Your task to perform on an android device: show emergency info Image 0: 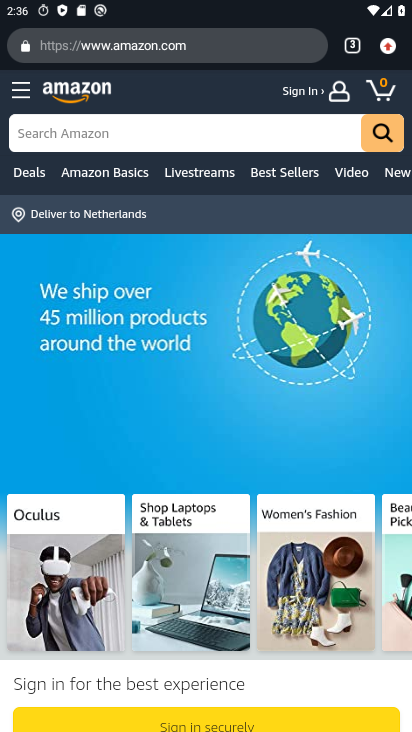
Step 0: press home button
Your task to perform on an android device: show emergency info Image 1: 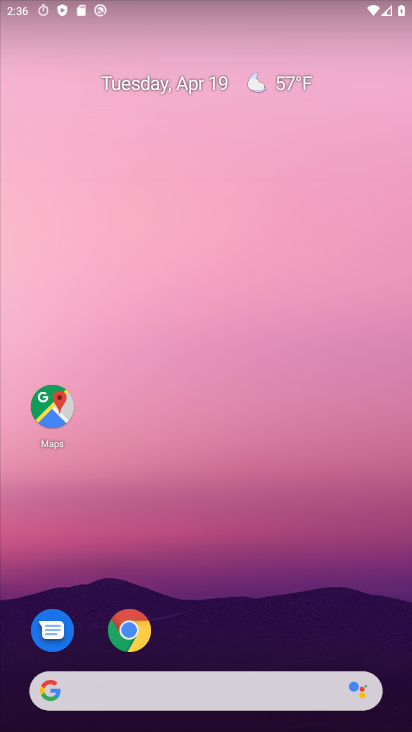
Step 1: drag from (214, 595) to (227, 6)
Your task to perform on an android device: show emergency info Image 2: 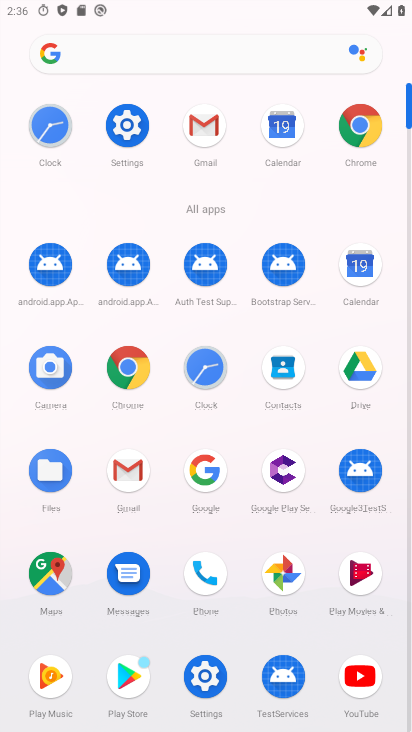
Step 2: click (124, 129)
Your task to perform on an android device: show emergency info Image 3: 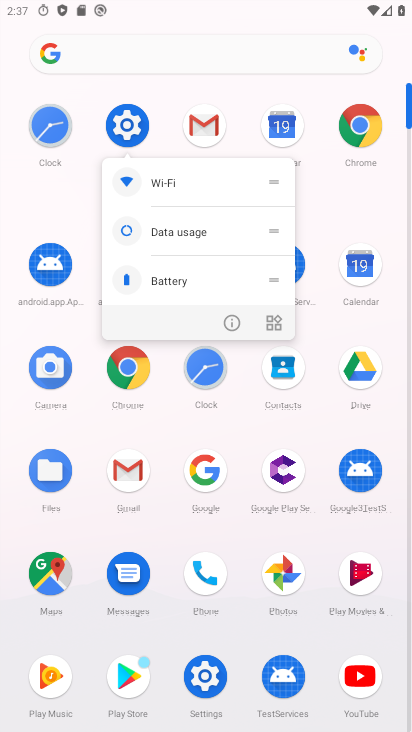
Step 3: click (130, 124)
Your task to perform on an android device: show emergency info Image 4: 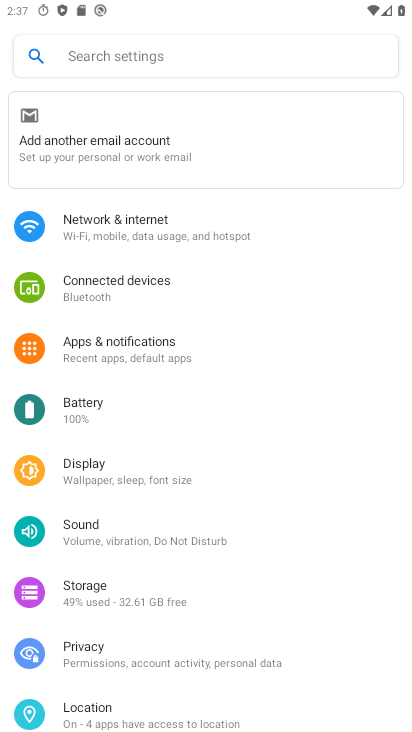
Step 4: drag from (156, 638) to (88, 71)
Your task to perform on an android device: show emergency info Image 5: 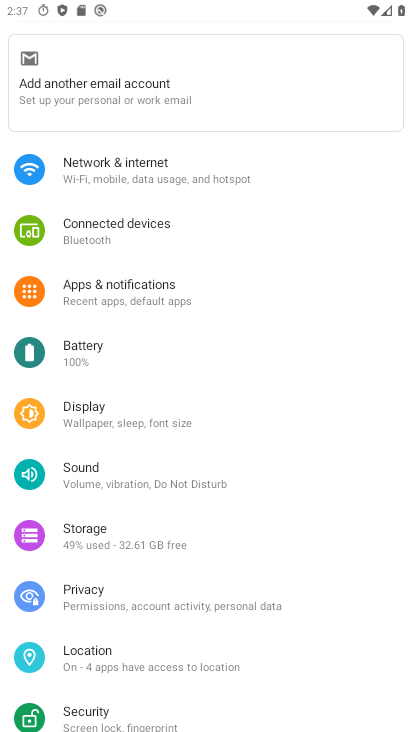
Step 5: drag from (175, 591) to (146, 159)
Your task to perform on an android device: show emergency info Image 6: 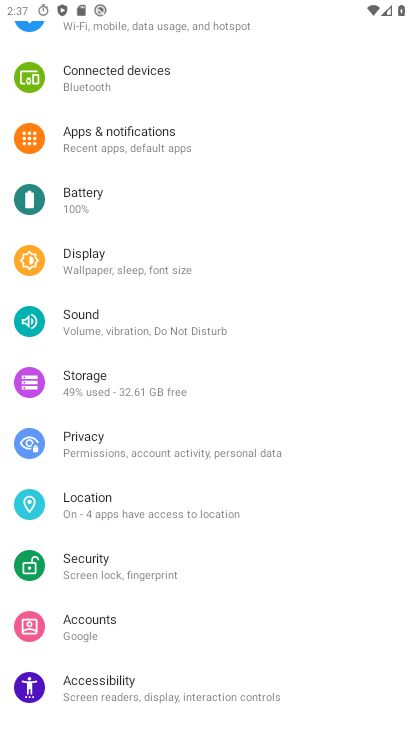
Step 6: drag from (153, 681) to (185, 198)
Your task to perform on an android device: show emergency info Image 7: 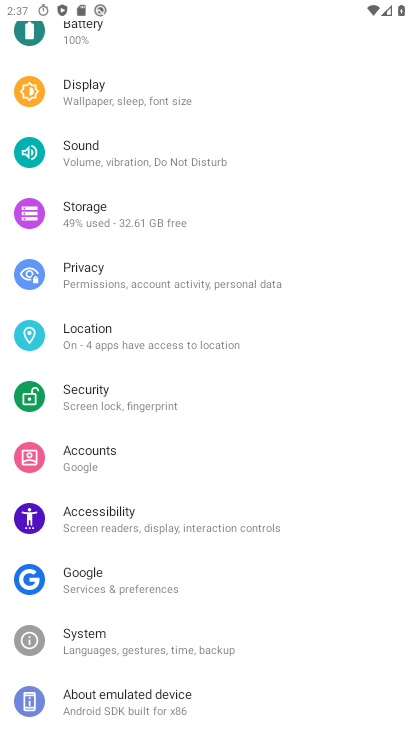
Step 7: click (151, 705)
Your task to perform on an android device: show emergency info Image 8: 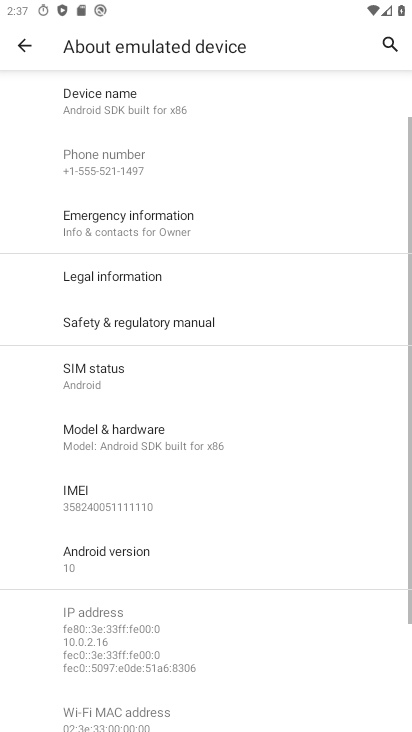
Step 8: click (151, 224)
Your task to perform on an android device: show emergency info Image 9: 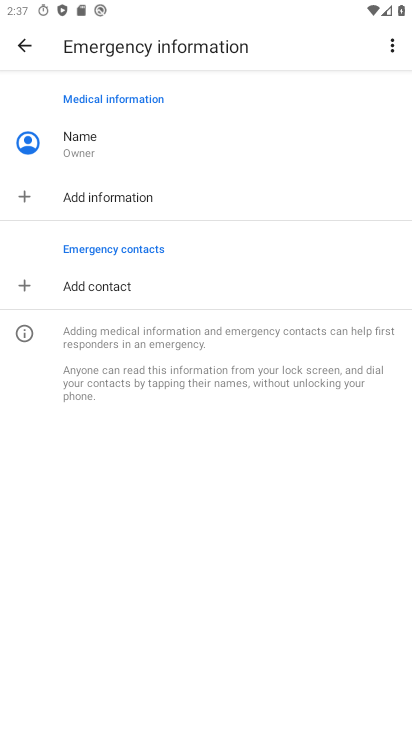
Step 9: task complete